Your task to perform on an android device: Show me popular games on the Play Store Image 0: 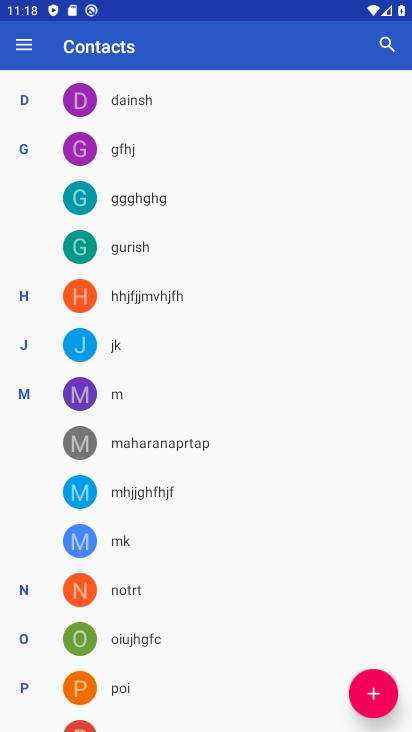
Step 0: press home button
Your task to perform on an android device: Show me popular games on the Play Store Image 1: 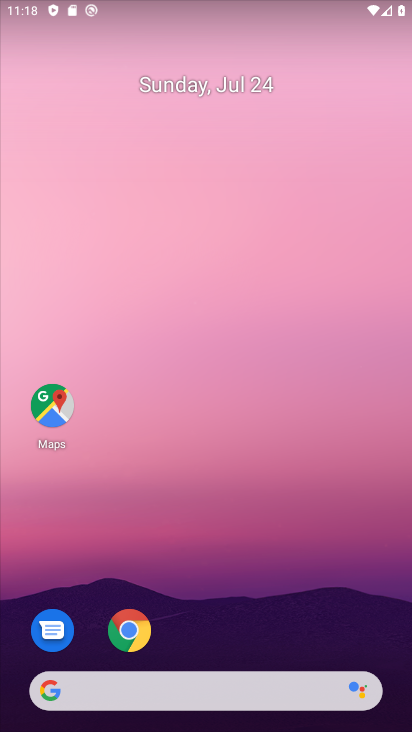
Step 1: drag from (249, 601) to (283, 11)
Your task to perform on an android device: Show me popular games on the Play Store Image 2: 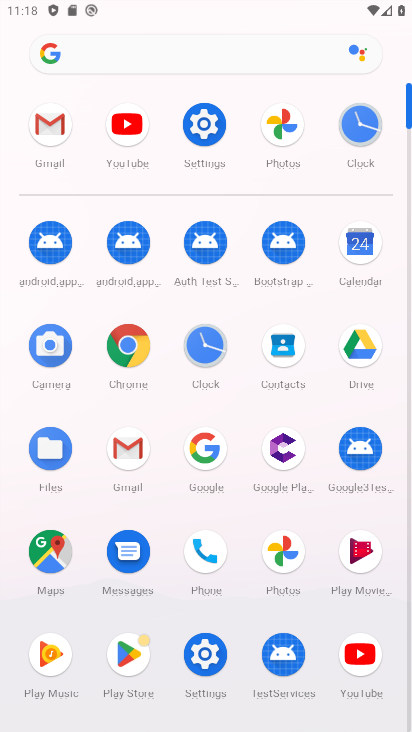
Step 2: click (122, 665)
Your task to perform on an android device: Show me popular games on the Play Store Image 3: 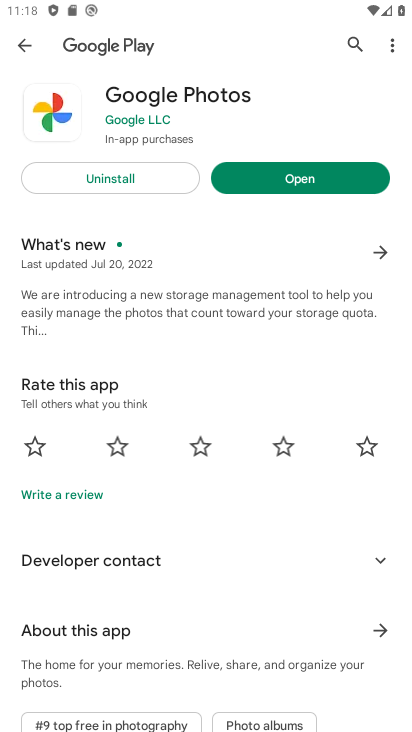
Step 3: click (17, 41)
Your task to perform on an android device: Show me popular games on the Play Store Image 4: 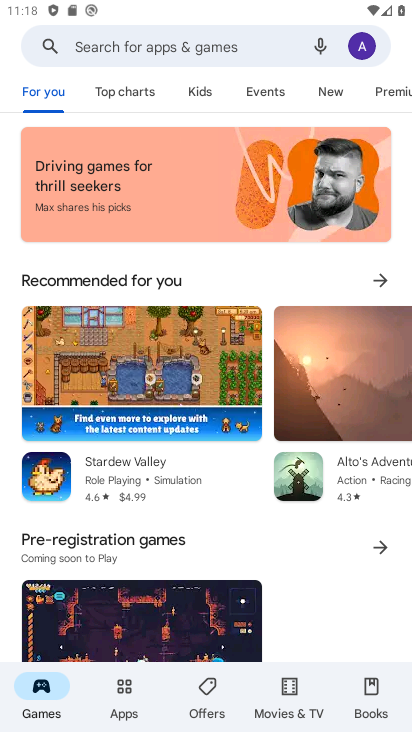
Step 4: click (127, 90)
Your task to perform on an android device: Show me popular games on the Play Store Image 5: 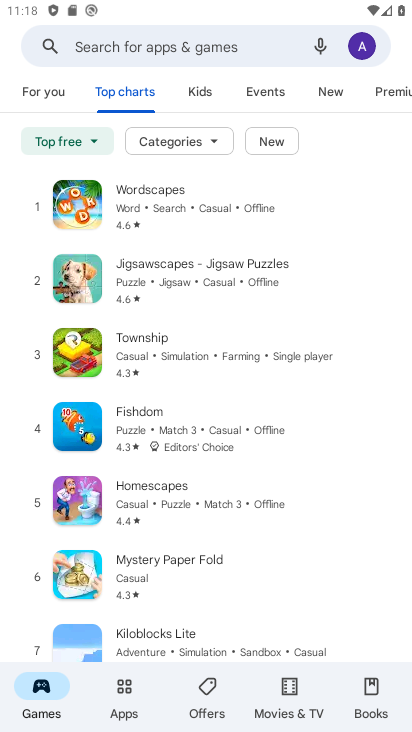
Step 5: task complete